Your task to perform on an android device: set the stopwatch Image 0: 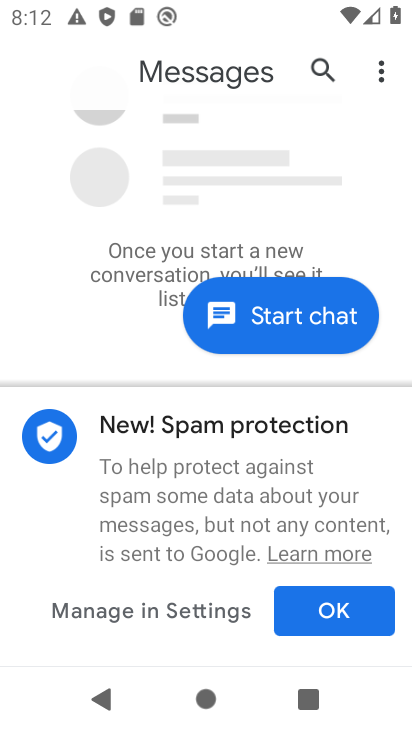
Step 0: press home button
Your task to perform on an android device: set the stopwatch Image 1: 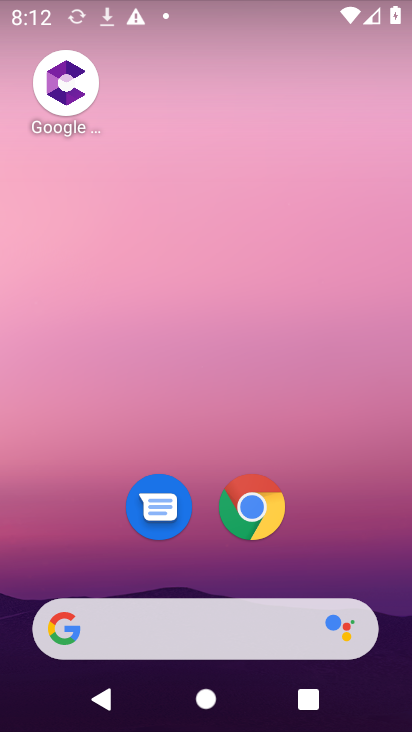
Step 1: drag from (227, 626) to (332, 58)
Your task to perform on an android device: set the stopwatch Image 2: 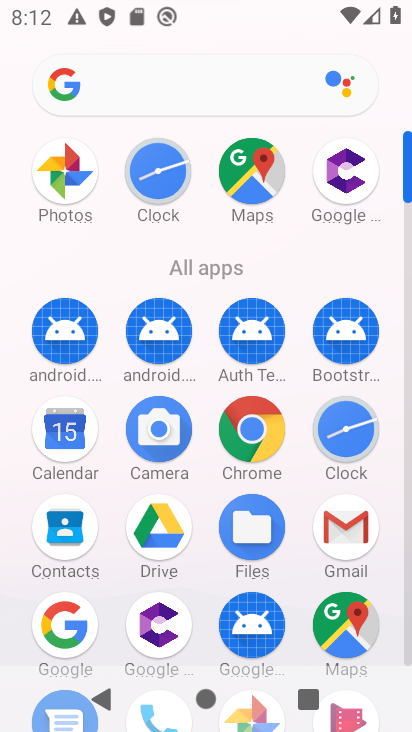
Step 2: click (163, 176)
Your task to perform on an android device: set the stopwatch Image 3: 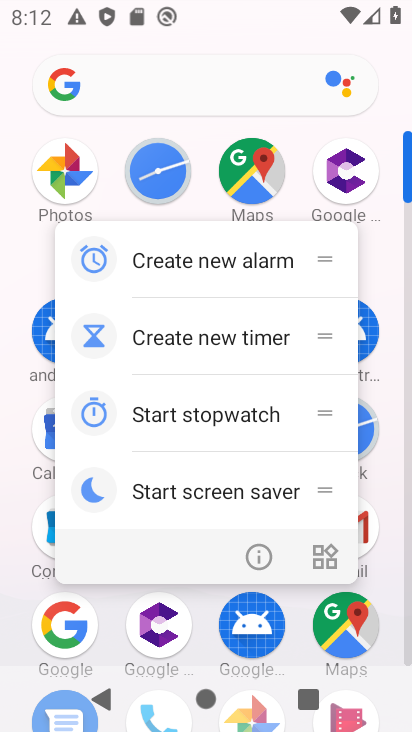
Step 3: click (163, 176)
Your task to perform on an android device: set the stopwatch Image 4: 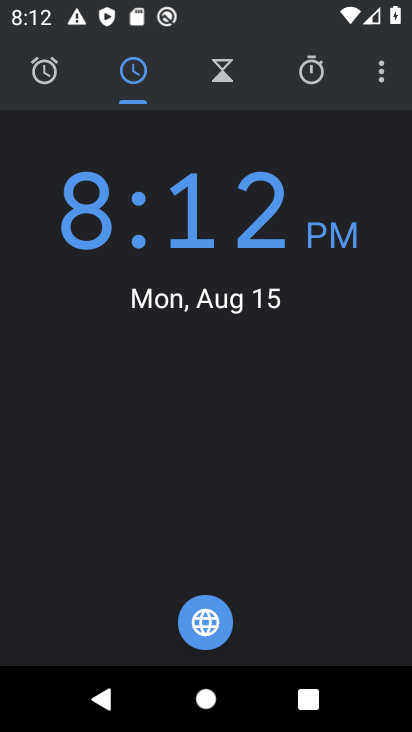
Step 4: click (313, 71)
Your task to perform on an android device: set the stopwatch Image 5: 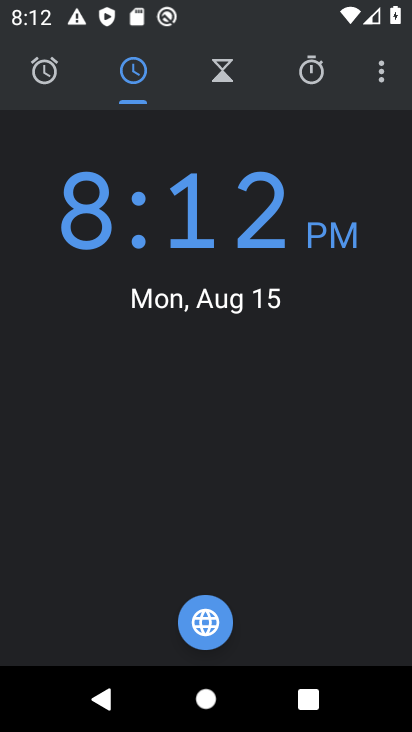
Step 5: click (310, 67)
Your task to perform on an android device: set the stopwatch Image 6: 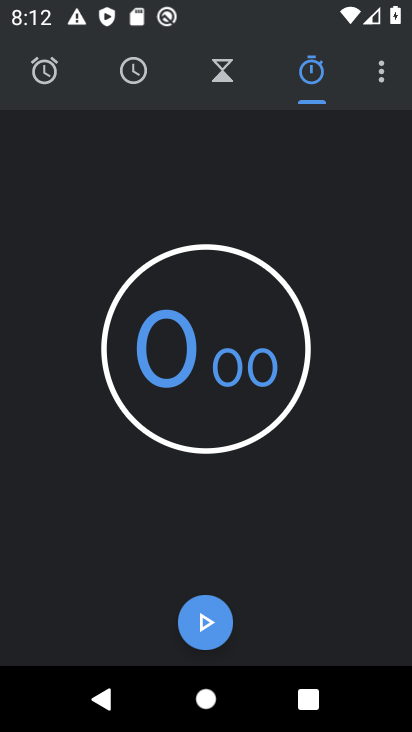
Step 6: click (221, 344)
Your task to perform on an android device: set the stopwatch Image 7: 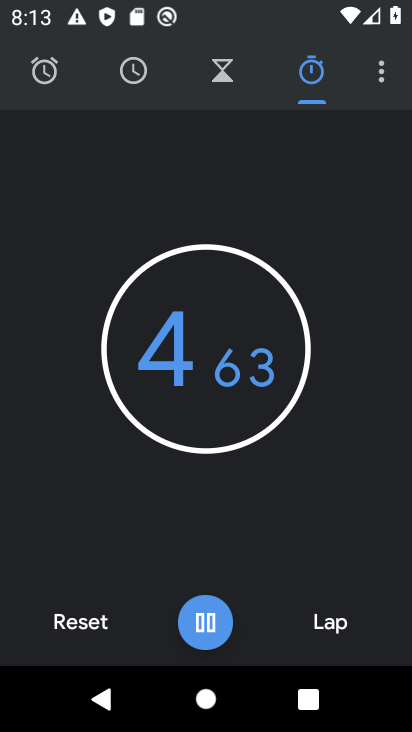
Step 7: click (221, 344)
Your task to perform on an android device: set the stopwatch Image 8: 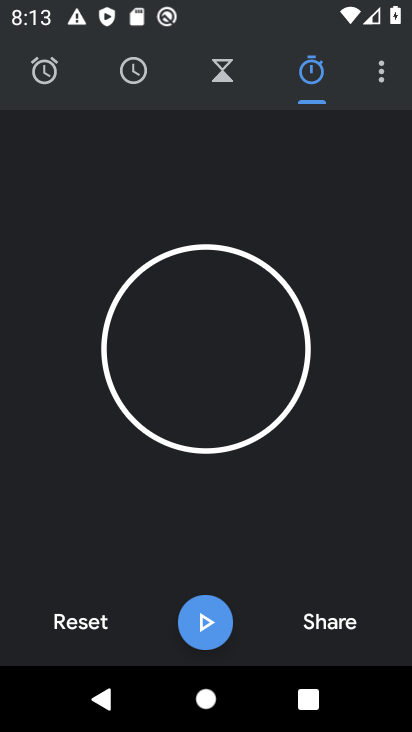
Step 8: task complete